Your task to perform on an android device: Play the last video I watched on Youtube Image 0: 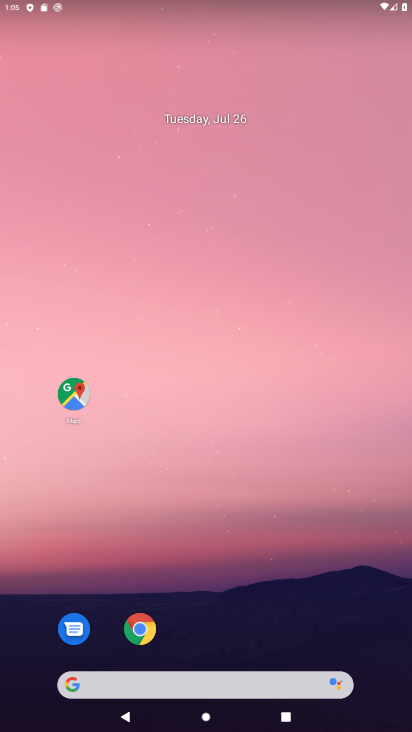
Step 0: drag from (395, 697) to (375, 155)
Your task to perform on an android device: Play the last video I watched on Youtube Image 1: 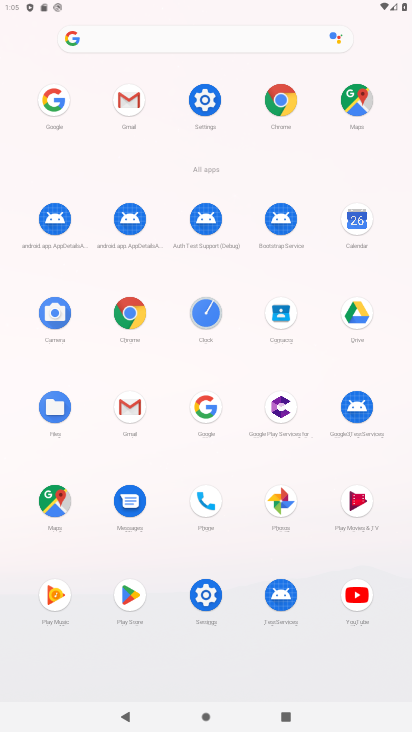
Step 1: click (352, 605)
Your task to perform on an android device: Play the last video I watched on Youtube Image 2: 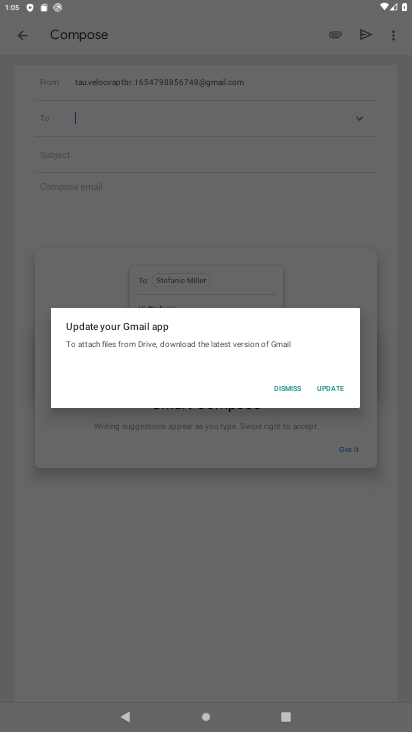
Step 2: click (300, 386)
Your task to perform on an android device: Play the last video I watched on Youtube Image 3: 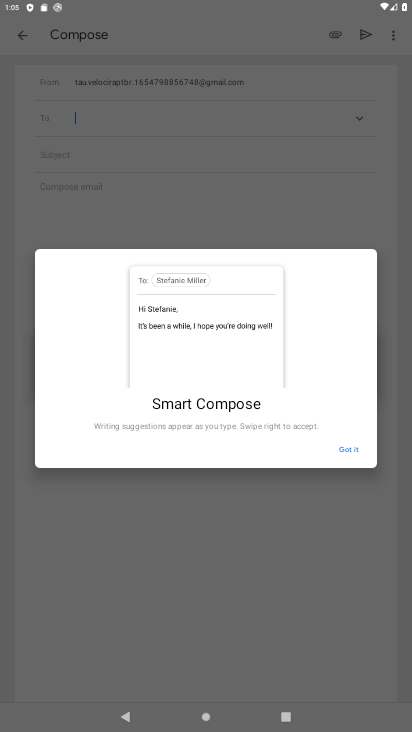
Step 3: click (14, 34)
Your task to perform on an android device: Play the last video I watched on Youtube Image 4: 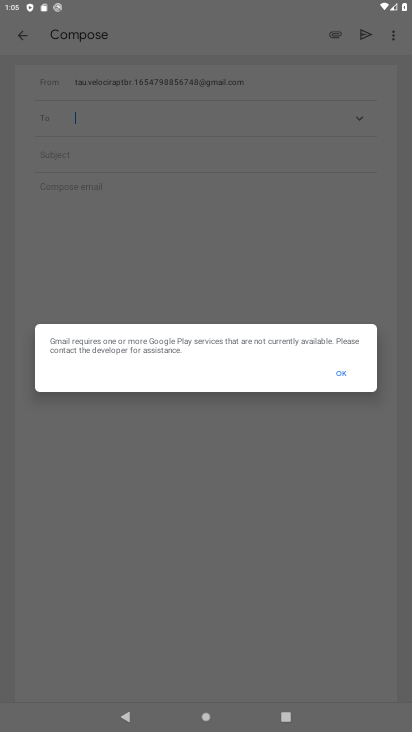
Step 4: click (351, 451)
Your task to perform on an android device: Play the last video I watched on Youtube Image 5: 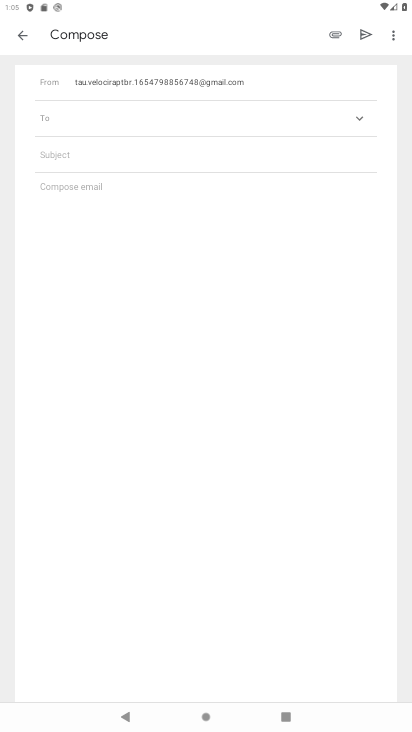
Step 5: click (338, 372)
Your task to perform on an android device: Play the last video I watched on Youtube Image 6: 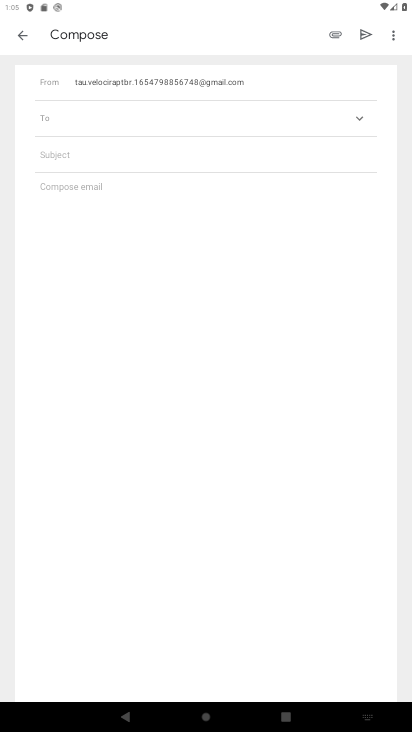
Step 6: click (15, 30)
Your task to perform on an android device: Play the last video I watched on Youtube Image 7: 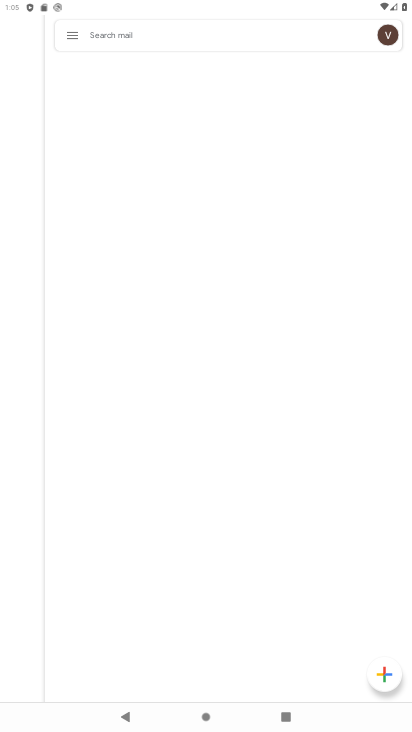
Step 7: press home button
Your task to perform on an android device: Play the last video I watched on Youtube Image 8: 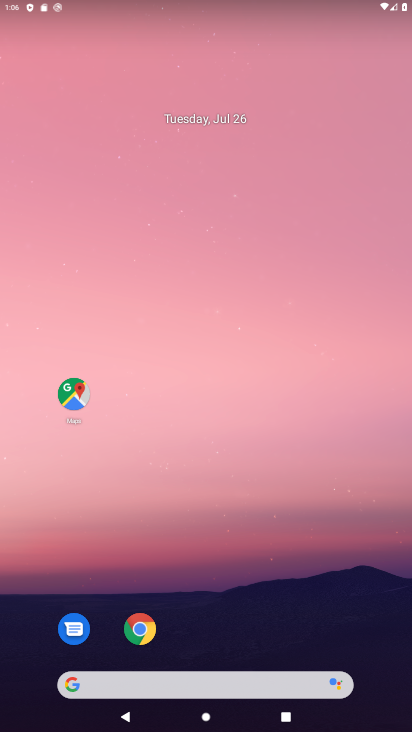
Step 8: drag from (377, 625) to (329, 116)
Your task to perform on an android device: Play the last video I watched on Youtube Image 9: 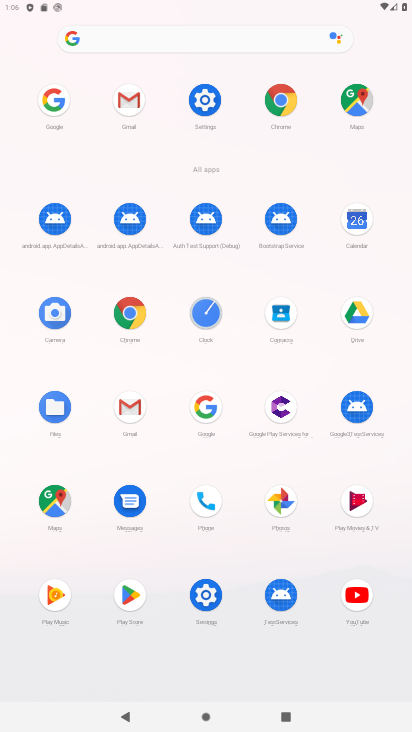
Step 9: click (351, 591)
Your task to perform on an android device: Play the last video I watched on Youtube Image 10: 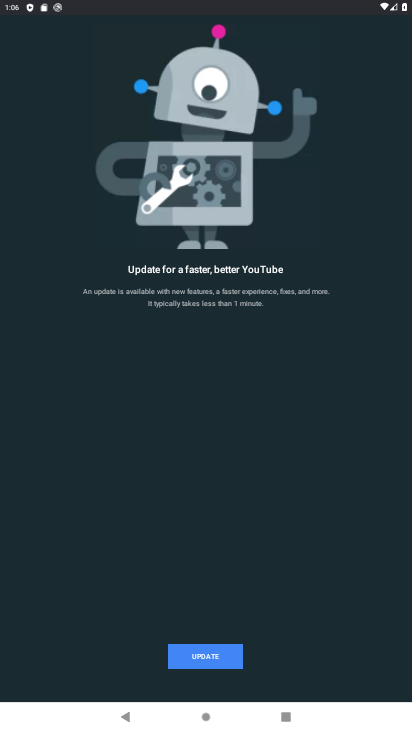
Step 10: click (176, 650)
Your task to perform on an android device: Play the last video I watched on Youtube Image 11: 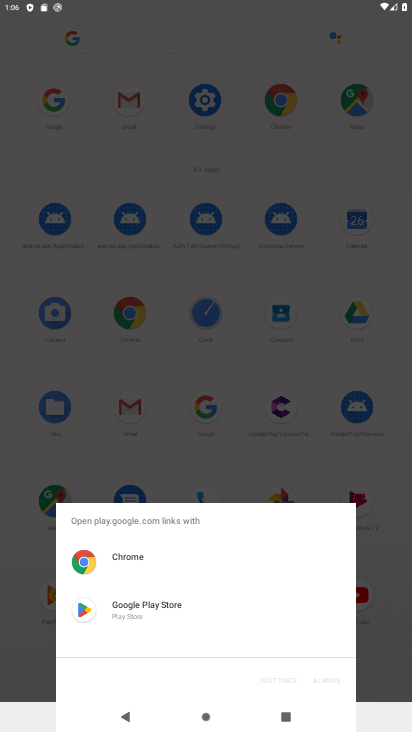
Step 11: click (139, 598)
Your task to perform on an android device: Play the last video I watched on Youtube Image 12: 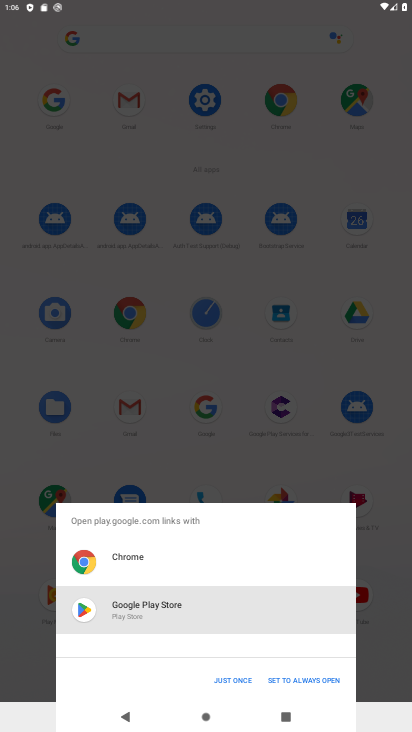
Step 12: click (238, 677)
Your task to perform on an android device: Play the last video I watched on Youtube Image 13: 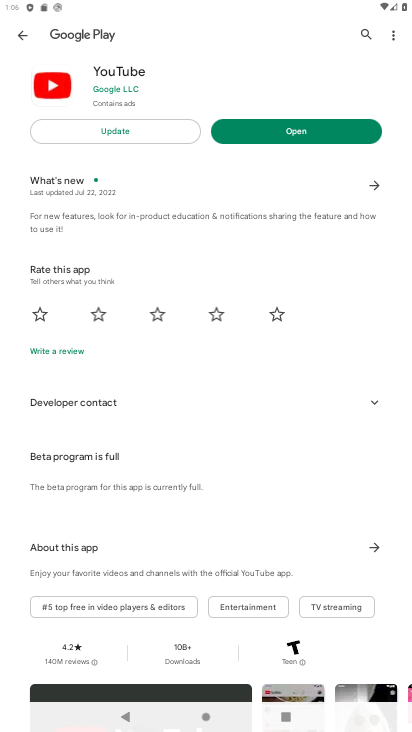
Step 13: click (109, 129)
Your task to perform on an android device: Play the last video I watched on Youtube Image 14: 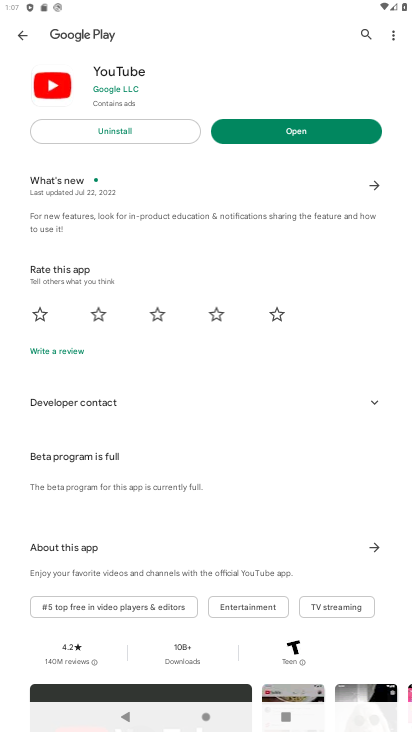
Step 14: click (305, 138)
Your task to perform on an android device: Play the last video I watched on Youtube Image 15: 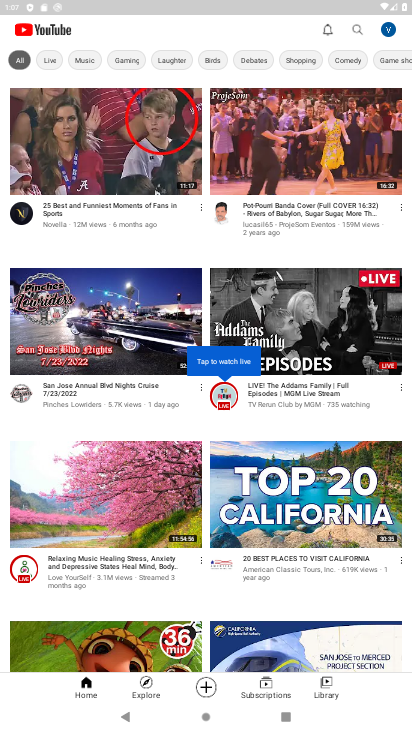
Step 15: click (326, 692)
Your task to perform on an android device: Play the last video I watched on Youtube Image 16: 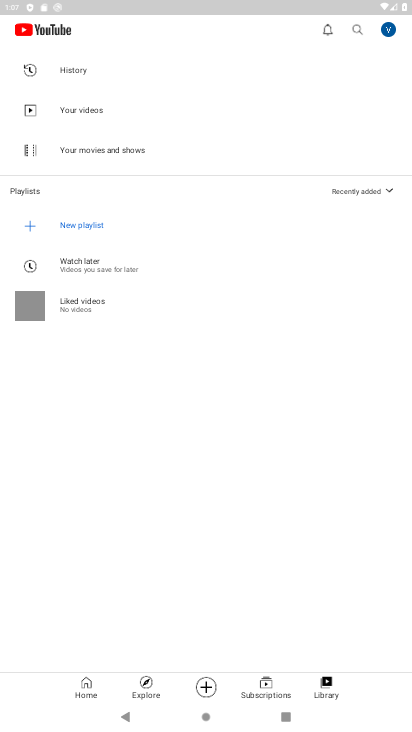
Step 16: click (66, 66)
Your task to perform on an android device: Play the last video I watched on Youtube Image 17: 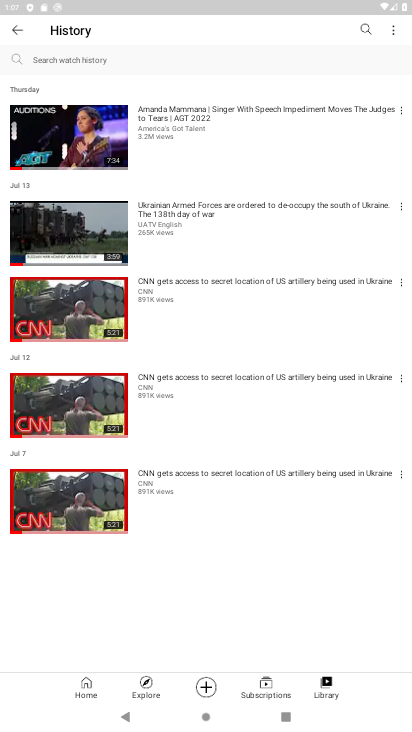
Step 17: click (73, 129)
Your task to perform on an android device: Play the last video I watched on Youtube Image 18: 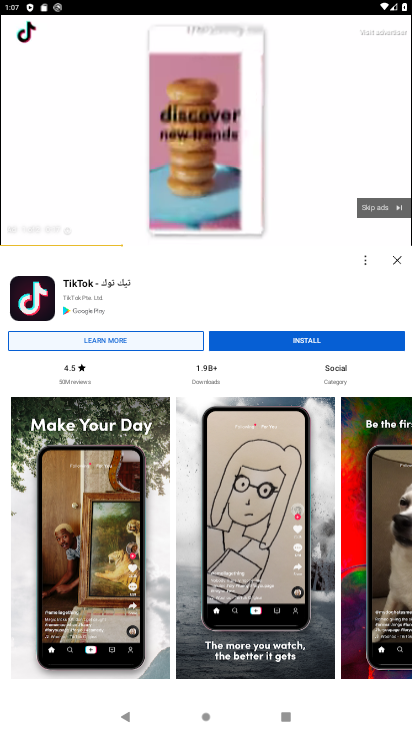
Step 18: click (388, 212)
Your task to perform on an android device: Play the last video I watched on Youtube Image 19: 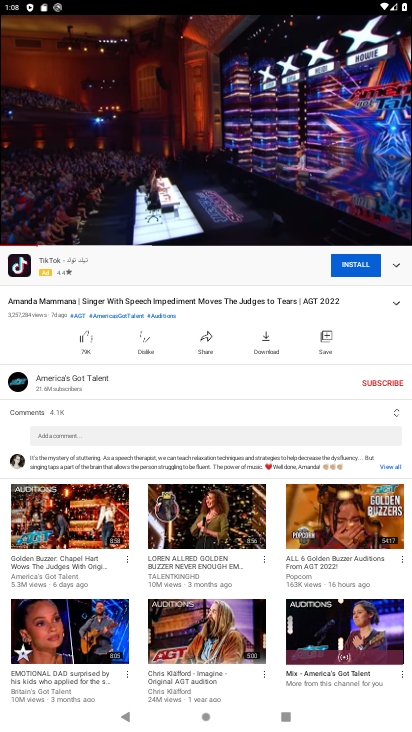
Step 19: task complete